Your task to perform on an android device: Open the camera Image 0: 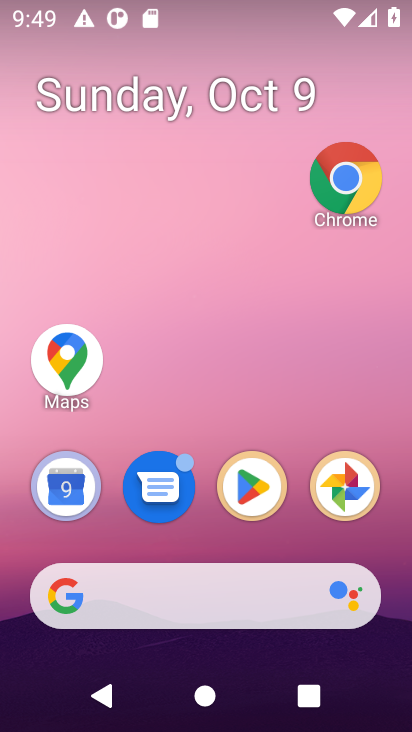
Step 0: drag from (212, 562) to (251, 104)
Your task to perform on an android device: Open the camera Image 1: 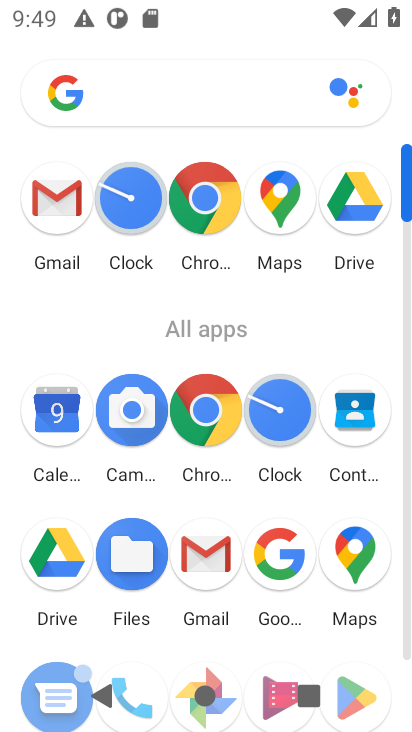
Step 1: click (115, 411)
Your task to perform on an android device: Open the camera Image 2: 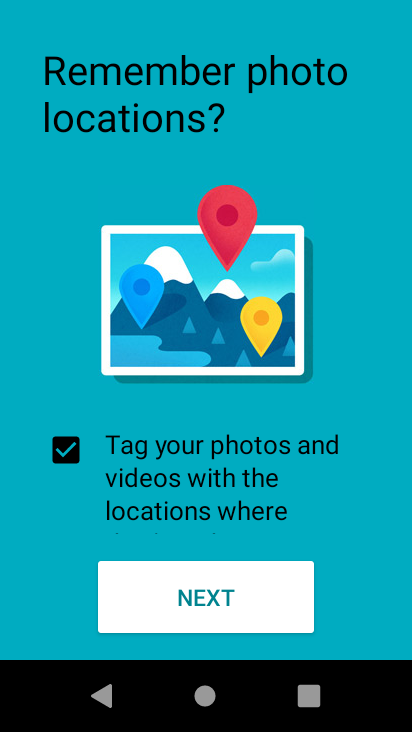
Step 2: click (241, 610)
Your task to perform on an android device: Open the camera Image 3: 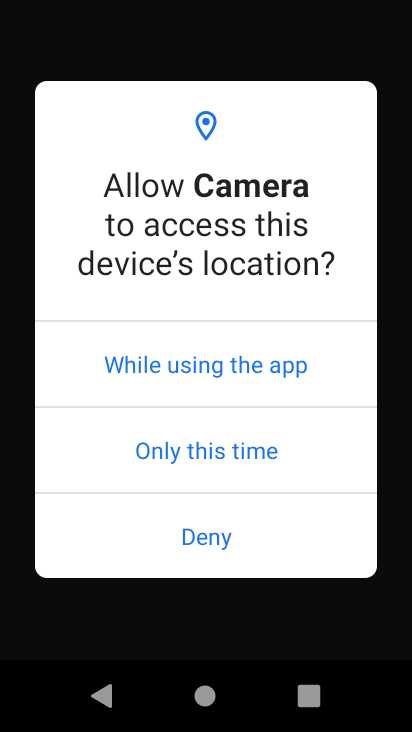
Step 3: click (227, 369)
Your task to perform on an android device: Open the camera Image 4: 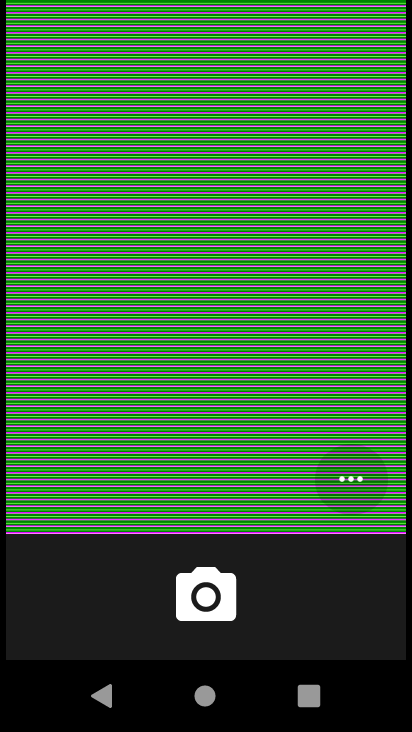
Step 4: task complete